Your task to perform on an android device: Go to Wikipedia Image 0: 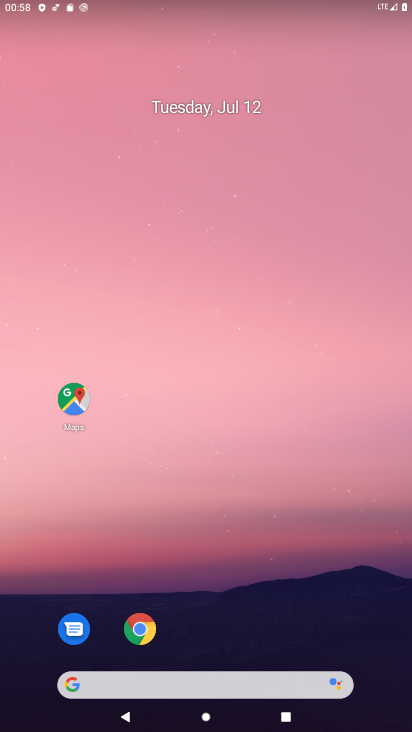
Step 0: click (192, 683)
Your task to perform on an android device: Go to Wikipedia Image 1: 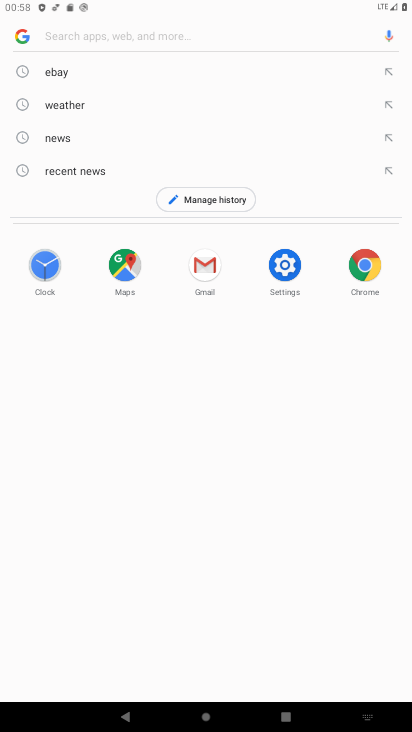
Step 1: type "Wikipedia"
Your task to perform on an android device: Go to Wikipedia Image 2: 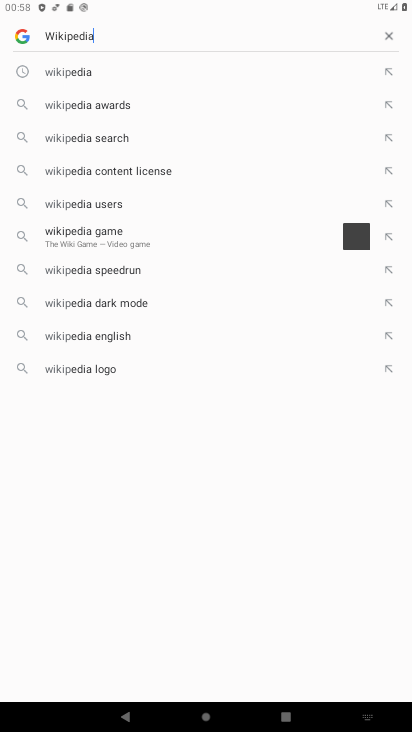
Step 2: type ""
Your task to perform on an android device: Go to Wikipedia Image 3: 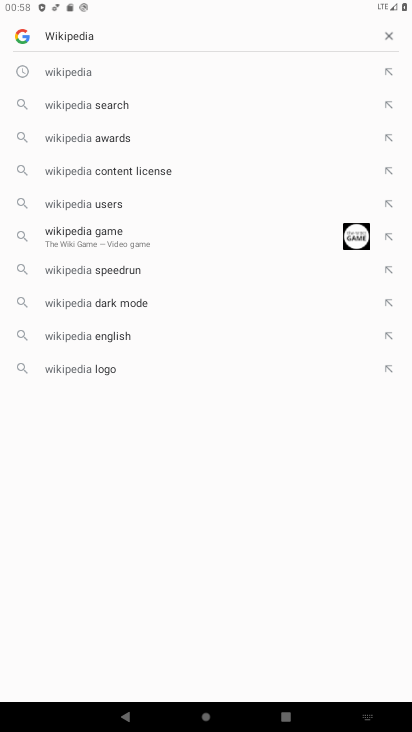
Step 3: click (49, 77)
Your task to perform on an android device: Go to Wikipedia Image 4: 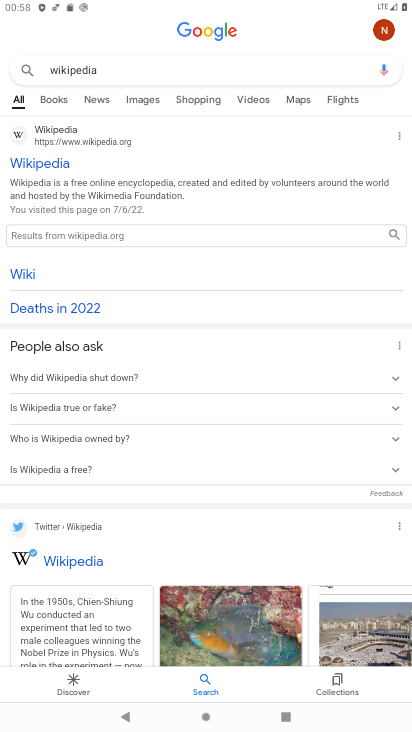
Step 4: task complete